Your task to perform on an android device: change notifications settings Image 0: 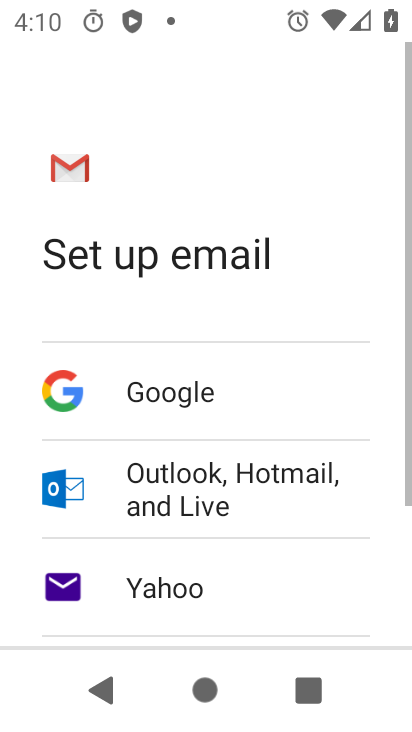
Step 0: press home button
Your task to perform on an android device: change notifications settings Image 1: 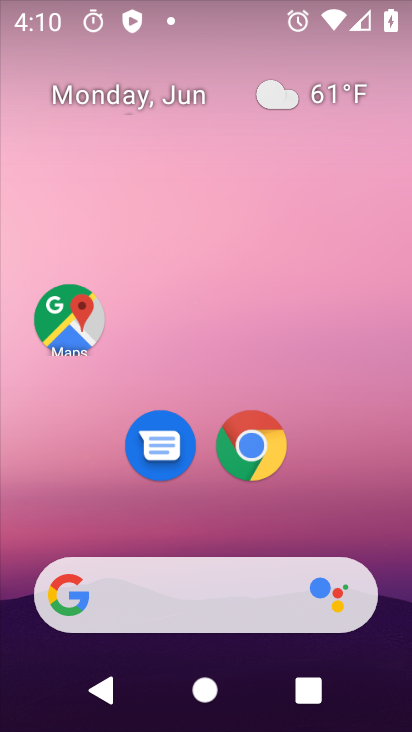
Step 1: drag from (193, 545) to (247, 54)
Your task to perform on an android device: change notifications settings Image 2: 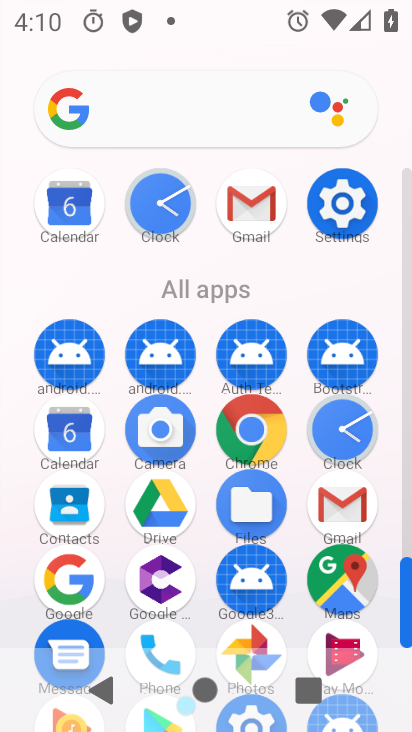
Step 2: click (345, 216)
Your task to perform on an android device: change notifications settings Image 3: 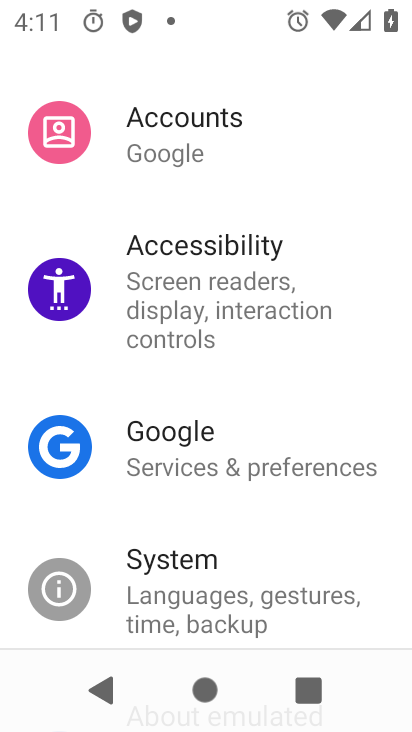
Step 3: drag from (242, 226) to (203, 468)
Your task to perform on an android device: change notifications settings Image 4: 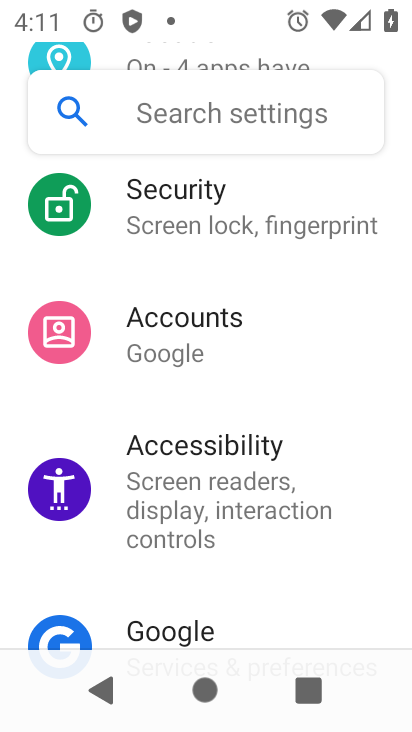
Step 4: drag from (240, 310) to (233, 490)
Your task to perform on an android device: change notifications settings Image 5: 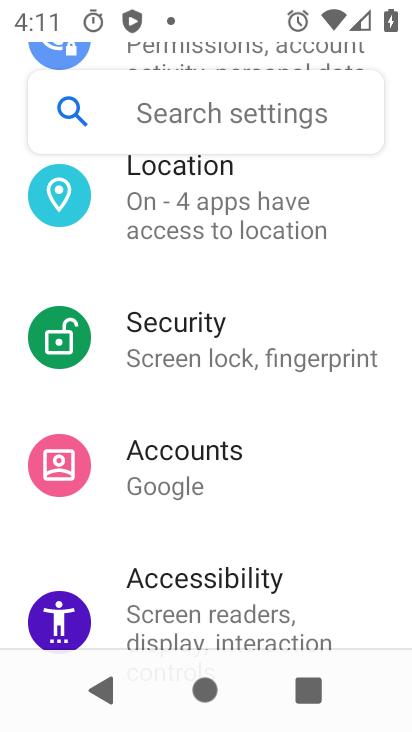
Step 5: drag from (262, 331) to (239, 546)
Your task to perform on an android device: change notifications settings Image 6: 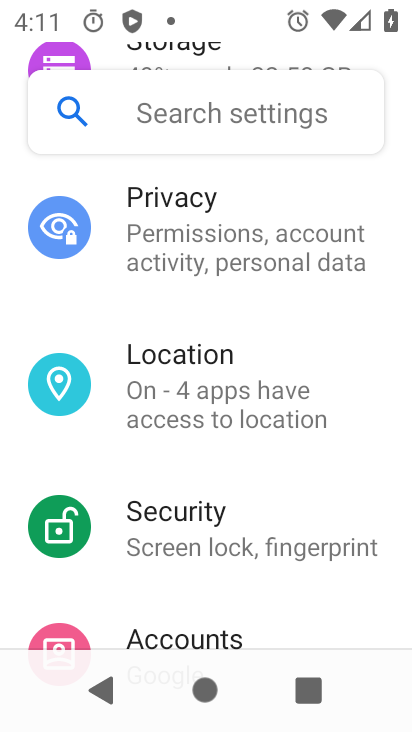
Step 6: drag from (249, 325) to (232, 595)
Your task to perform on an android device: change notifications settings Image 7: 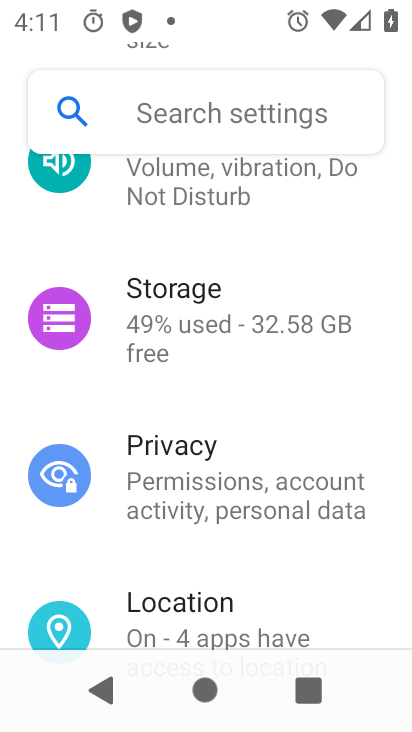
Step 7: drag from (215, 402) to (224, 676)
Your task to perform on an android device: change notifications settings Image 8: 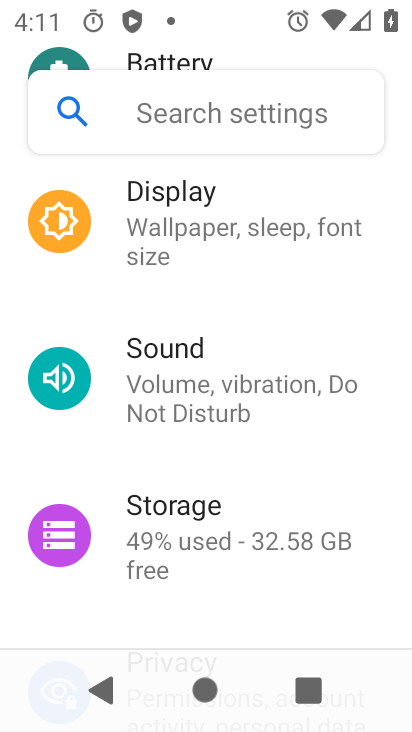
Step 8: drag from (264, 338) to (266, 653)
Your task to perform on an android device: change notifications settings Image 9: 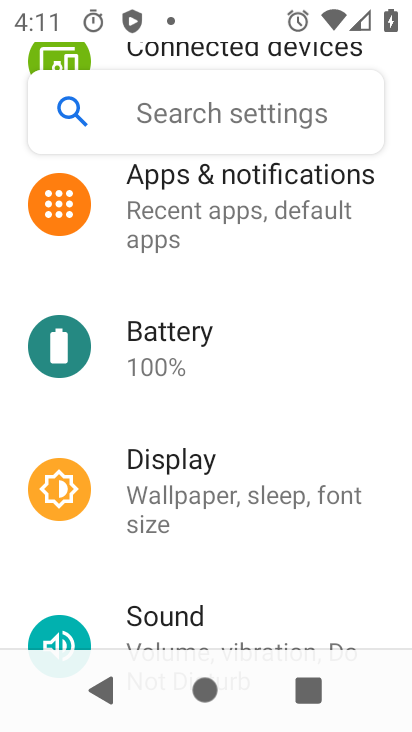
Step 9: drag from (284, 295) to (276, 557)
Your task to perform on an android device: change notifications settings Image 10: 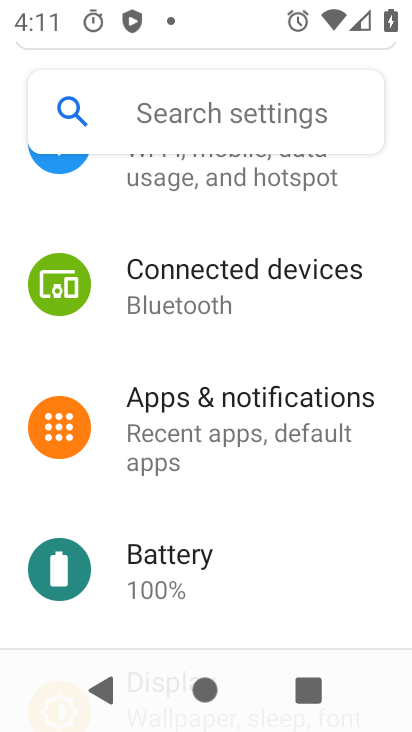
Step 10: drag from (263, 392) to (254, 664)
Your task to perform on an android device: change notifications settings Image 11: 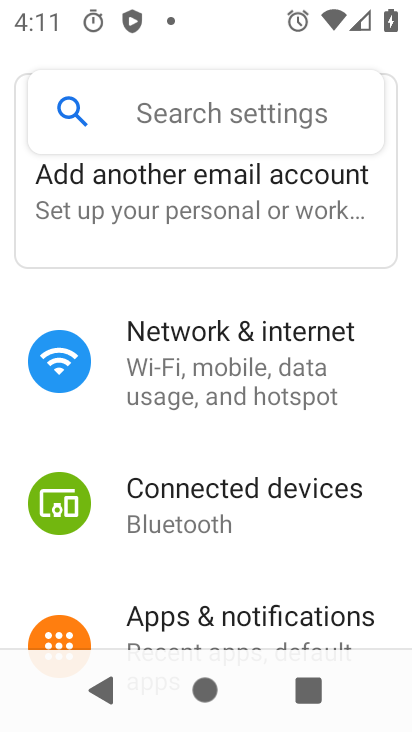
Step 11: click (225, 644)
Your task to perform on an android device: change notifications settings Image 12: 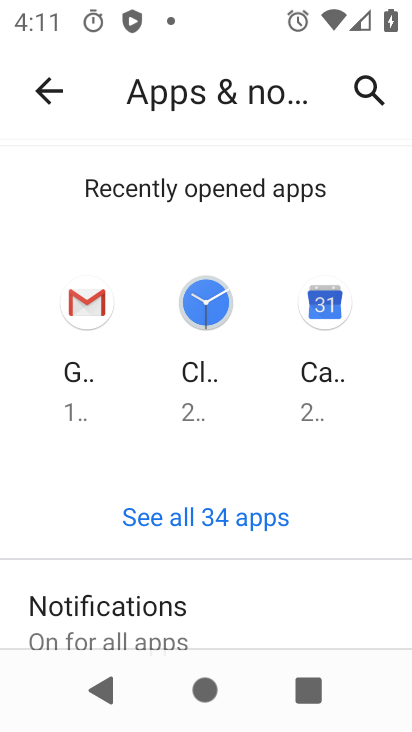
Step 12: drag from (247, 631) to (250, 330)
Your task to perform on an android device: change notifications settings Image 13: 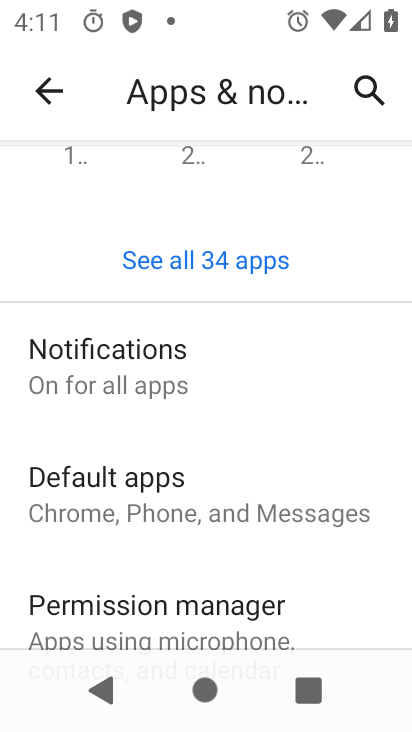
Step 13: drag from (211, 585) to (215, 326)
Your task to perform on an android device: change notifications settings Image 14: 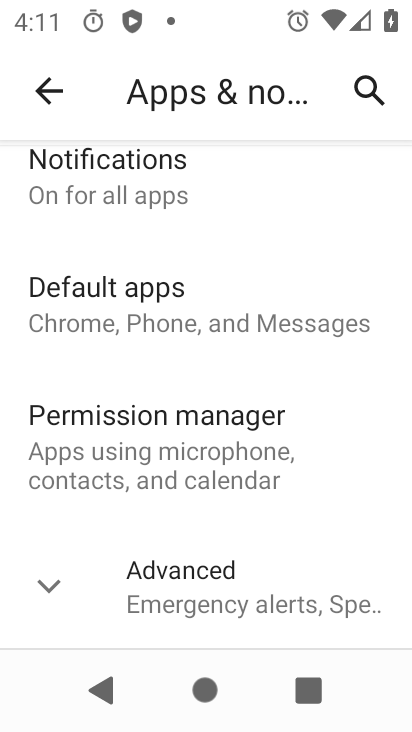
Step 14: drag from (191, 590) to (211, 369)
Your task to perform on an android device: change notifications settings Image 15: 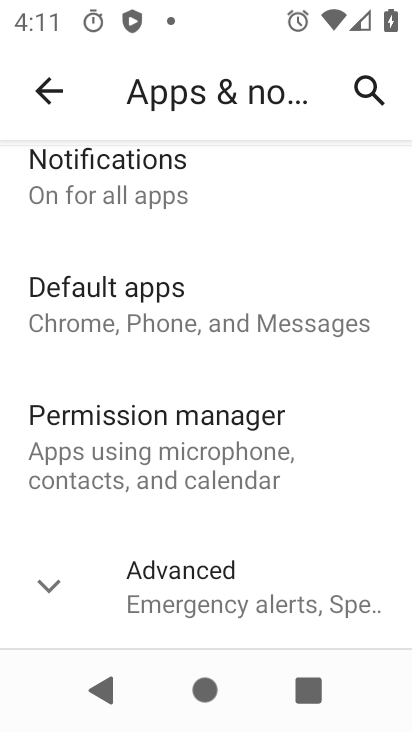
Step 15: click (123, 193)
Your task to perform on an android device: change notifications settings Image 16: 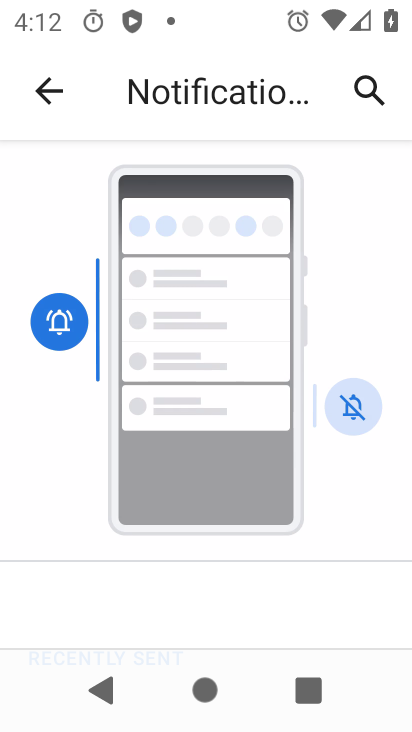
Step 16: drag from (208, 573) to (234, 172)
Your task to perform on an android device: change notifications settings Image 17: 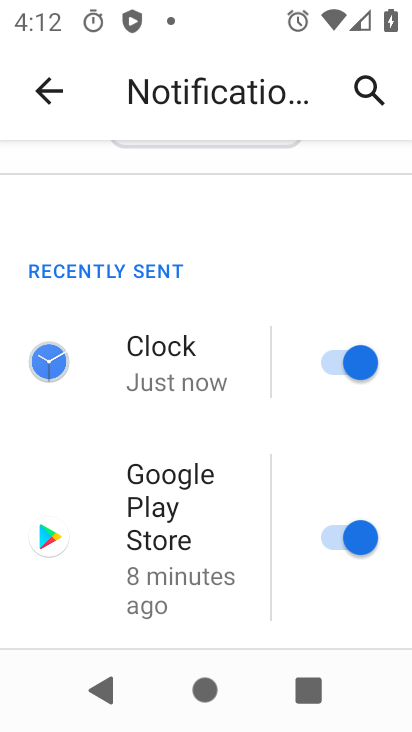
Step 17: drag from (221, 538) to (221, 227)
Your task to perform on an android device: change notifications settings Image 18: 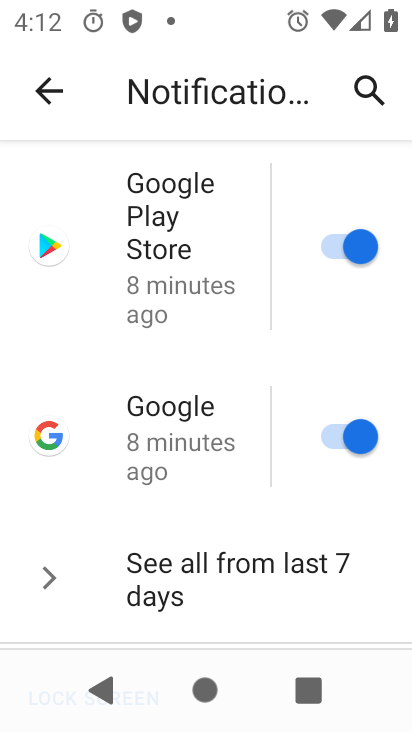
Step 18: drag from (148, 501) to (193, 184)
Your task to perform on an android device: change notifications settings Image 19: 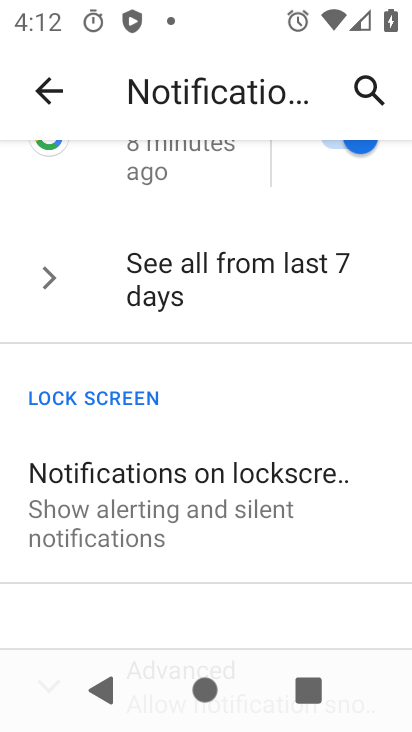
Step 19: click (150, 518)
Your task to perform on an android device: change notifications settings Image 20: 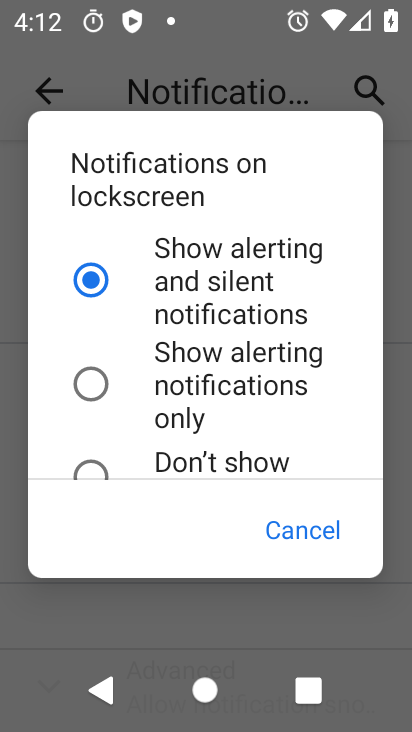
Step 20: click (93, 473)
Your task to perform on an android device: change notifications settings Image 21: 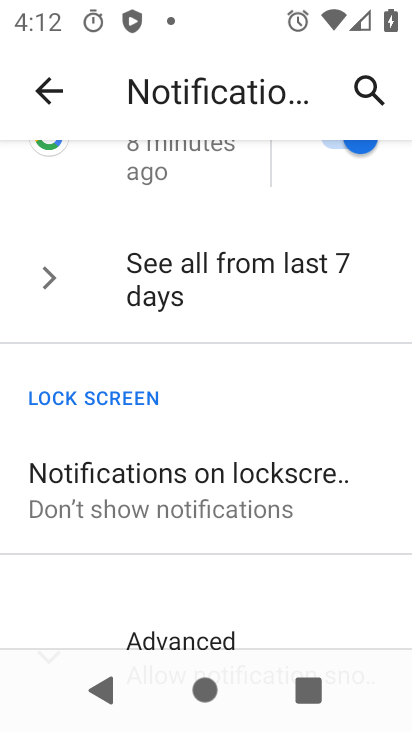
Step 21: task complete